Your task to perform on an android device: turn off improve location accuracy Image 0: 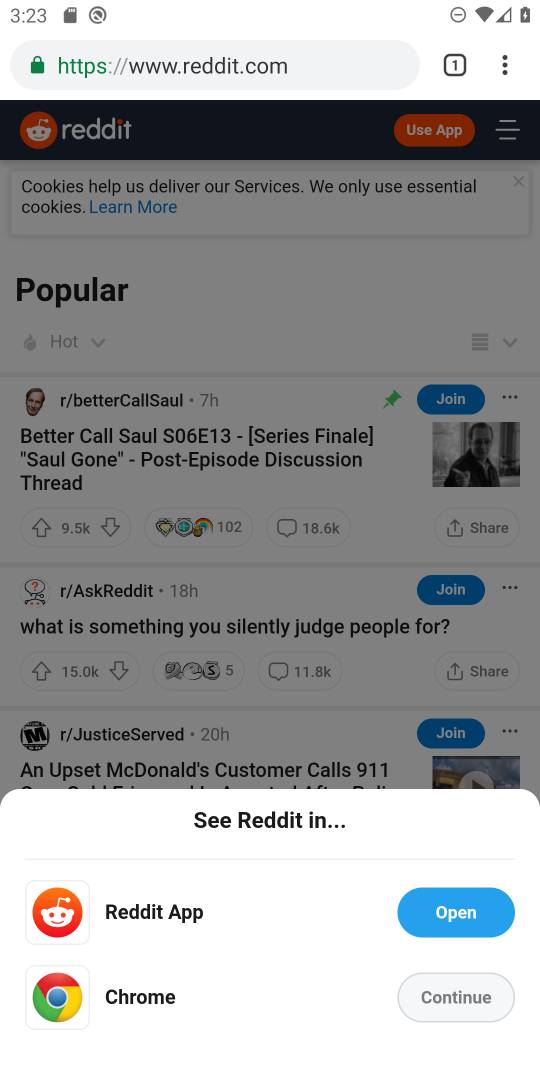
Step 0: press home button
Your task to perform on an android device: turn off improve location accuracy Image 1: 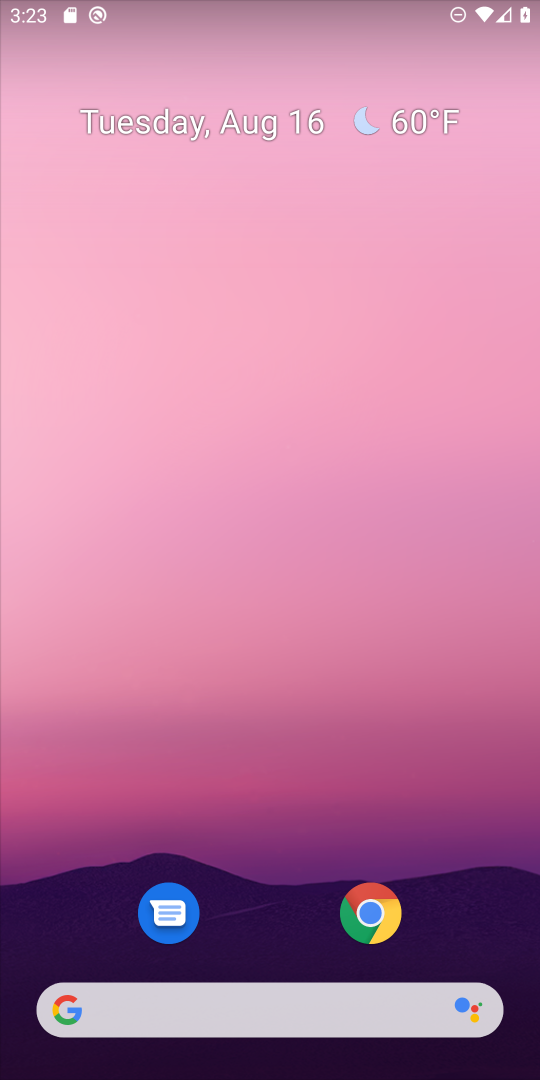
Step 1: drag from (449, 681) to (441, 176)
Your task to perform on an android device: turn off improve location accuracy Image 2: 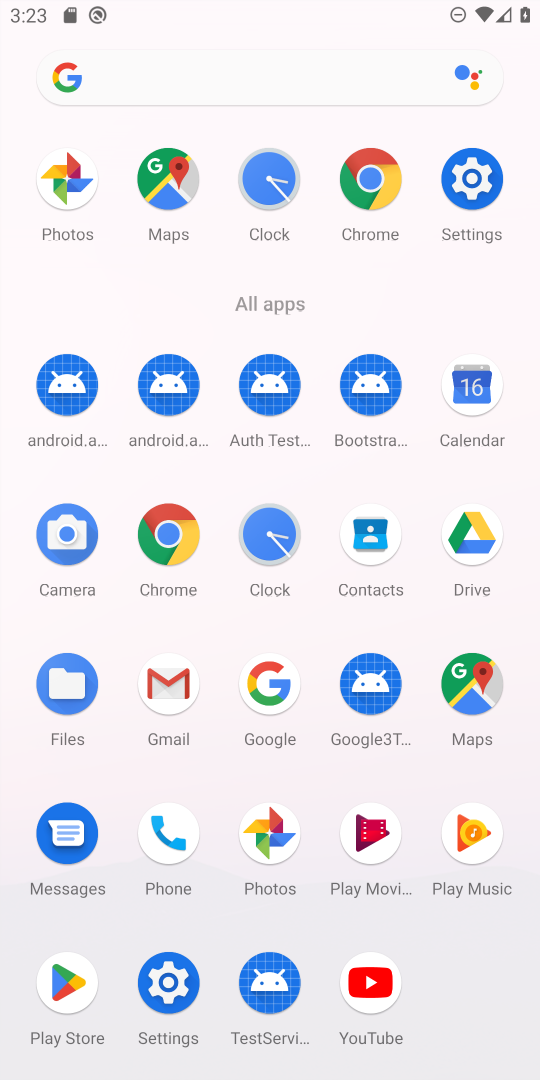
Step 2: click (168, 986)
Your task to perform on an android device: turn off improve location accuracy Image 3: 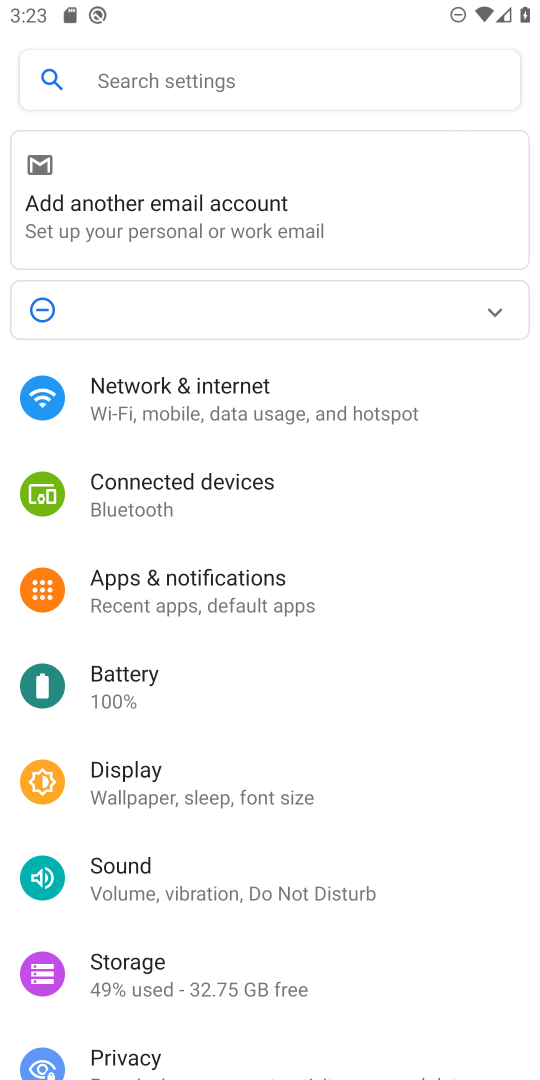
Step 3: drag from (426, 972) to (405, 357)
Your task to perform on an android device: turn off improve location accuracy Image 4: 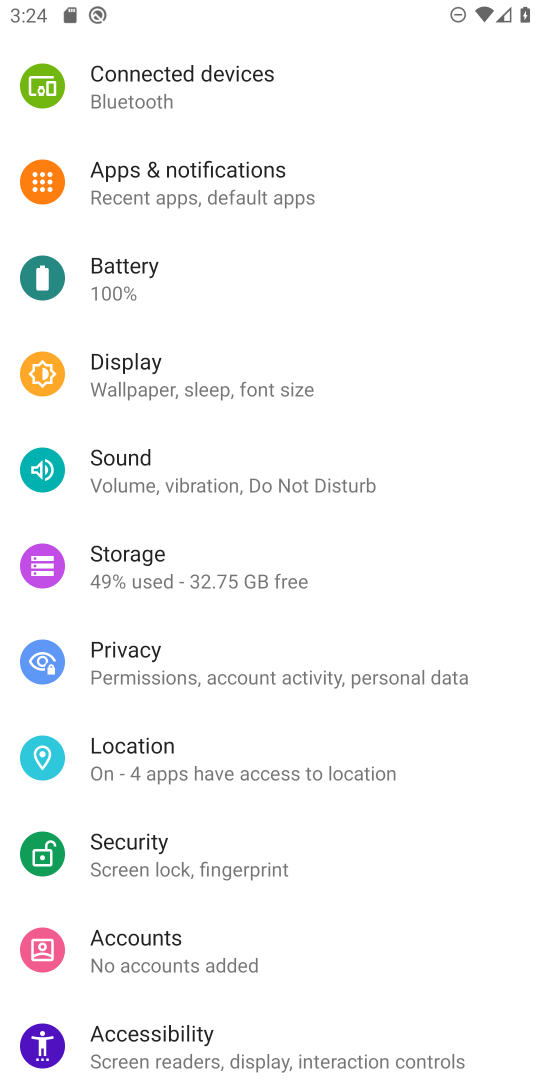
Step 4: click (159, 768)
Your task to perform on an android device: turn off improve location accuracy Image 5: 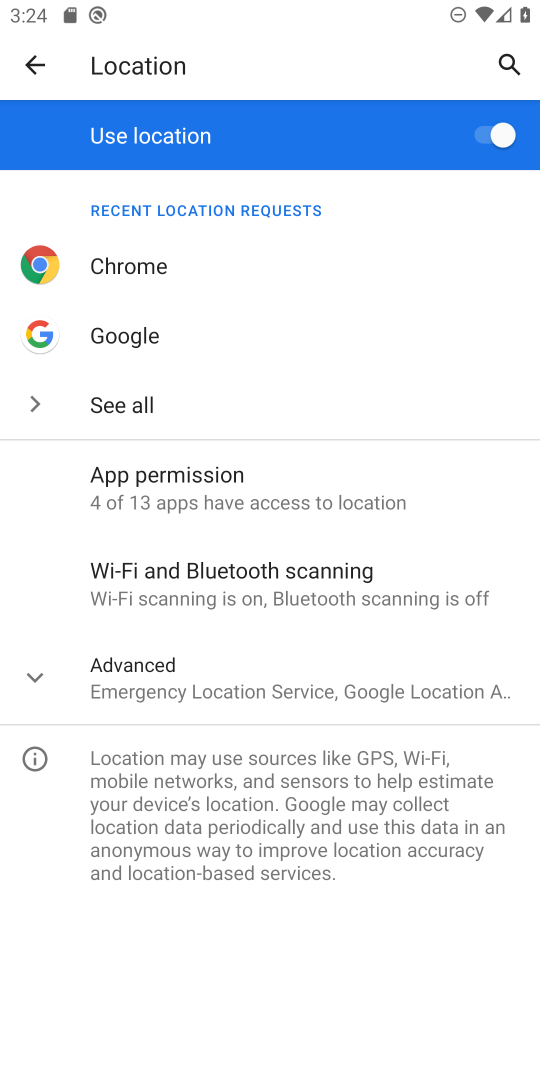
Step 5: click (54, 662)
Your task to perform on an android device: turn off improve location accuracy Image 6: 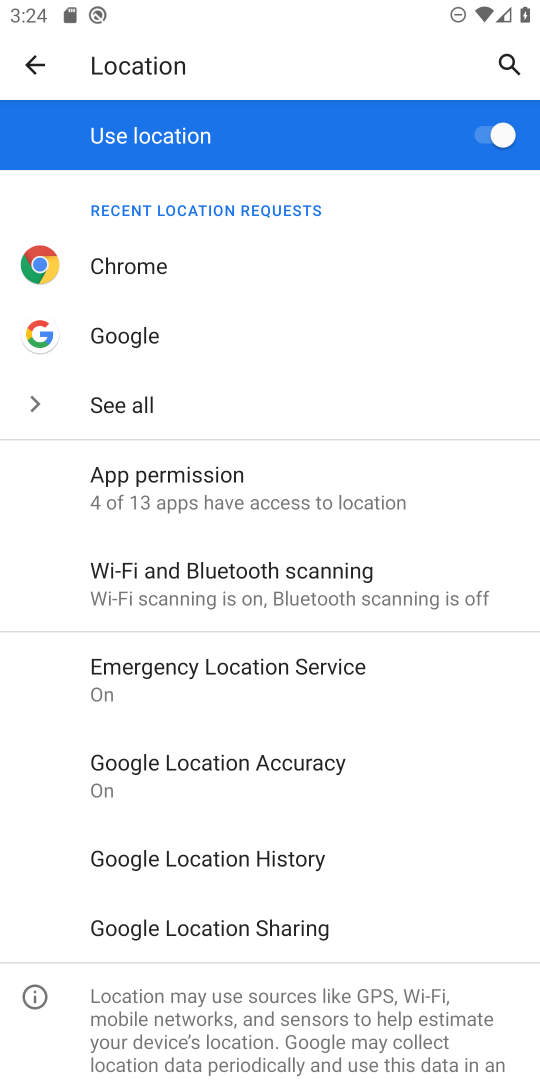
Step 6: click (250, 764)
Your task to perform on an android device: turn off improve location accuracy Image 7: 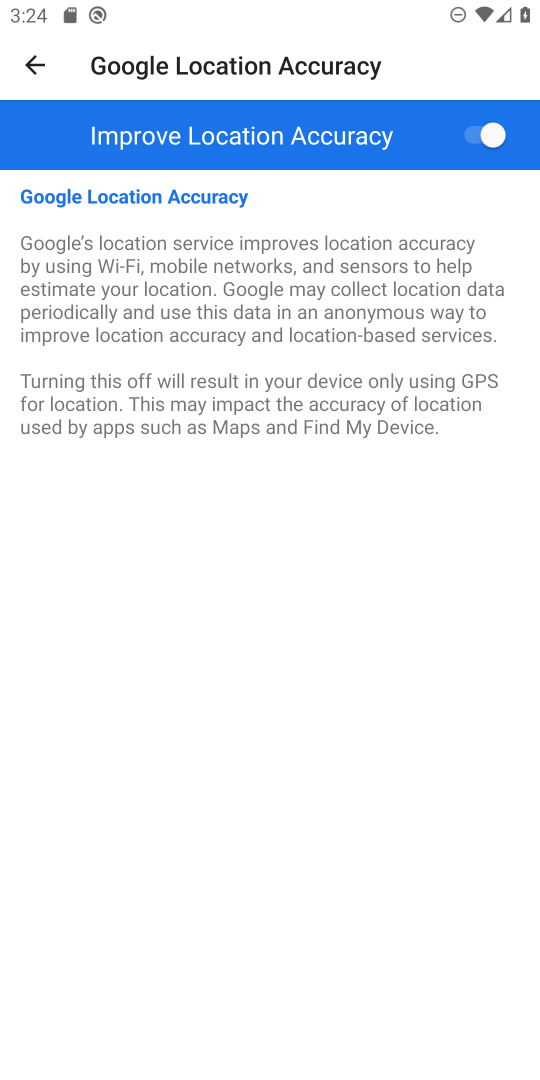
Step 7: click (468, 121)
Your task to perform on an android device: turn off improve location accuracy Image 8: 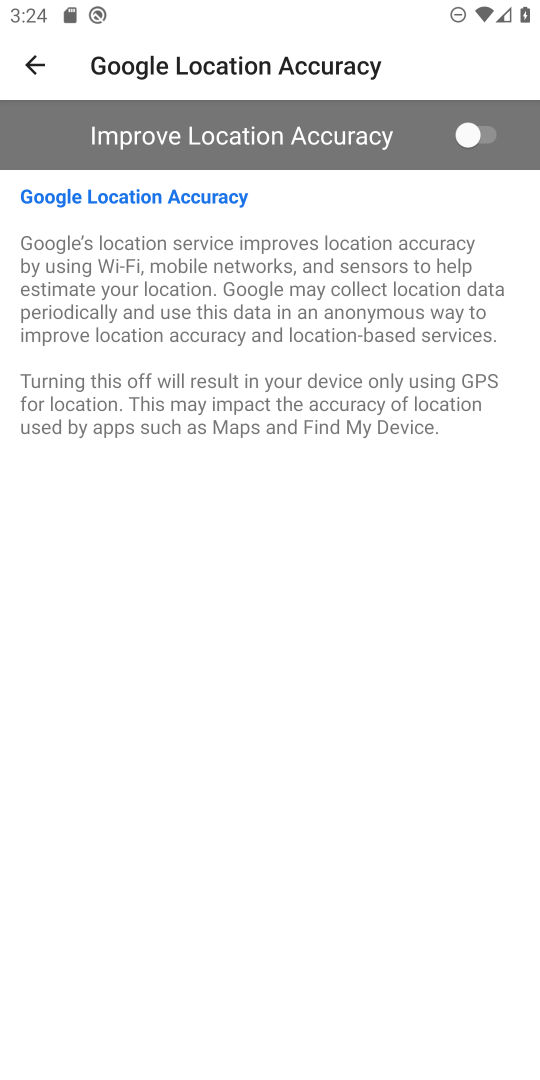
Step 8: task complete